Your task to perform on an android device: change the clock display to show seconds Image 0: 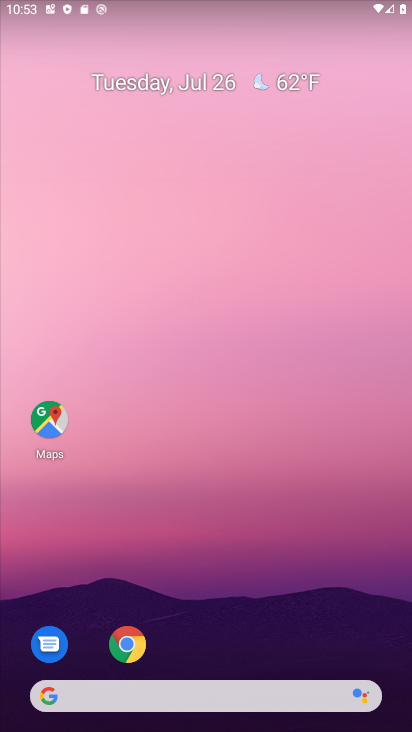
Step 0: drag from (268, 633) to (198, 12)
Your task to perform on an android device: change the clock display to show seconds Image 1: 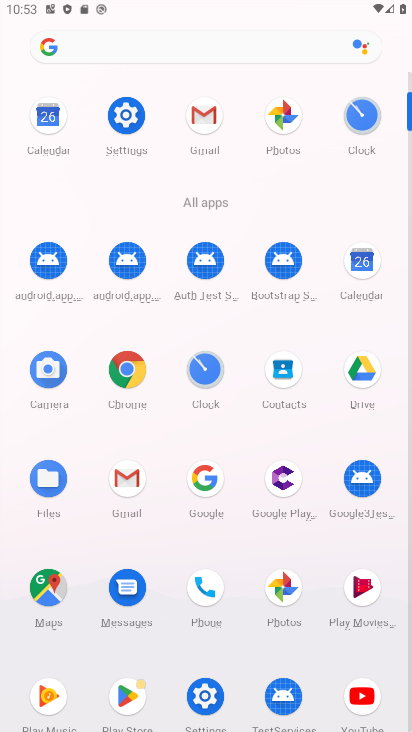
Step 1: click (192, 364)
Your task to perform on an android device: change the clock display to show seconds Image 2: 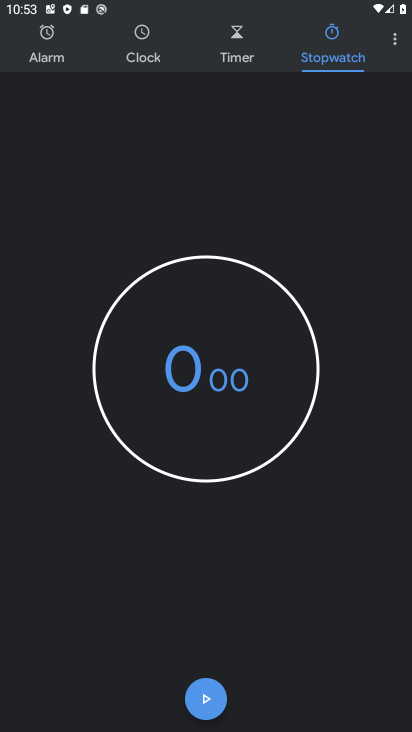
Step 2: click (391, 27)
Your task to perform on an android device: change the clock display to show seconds Image 3: 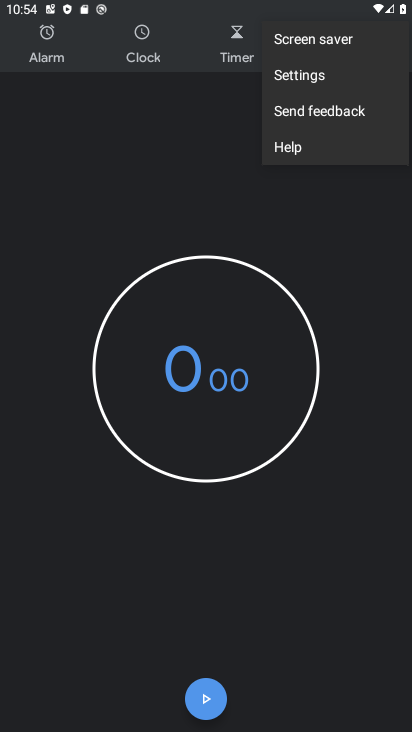
Step 3: click (317, 85)
Your task to perform on an android device: change the clock display to show seconds Image 4: 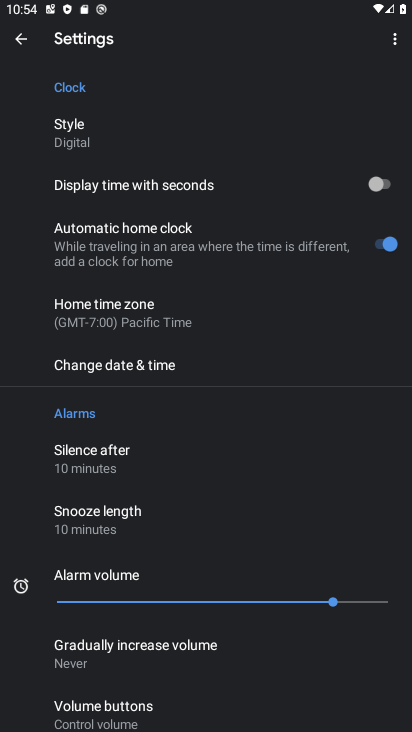
Step 4: click (383, 191)
Your task to perform on an android device: change the clock display to show seconds Image 5: 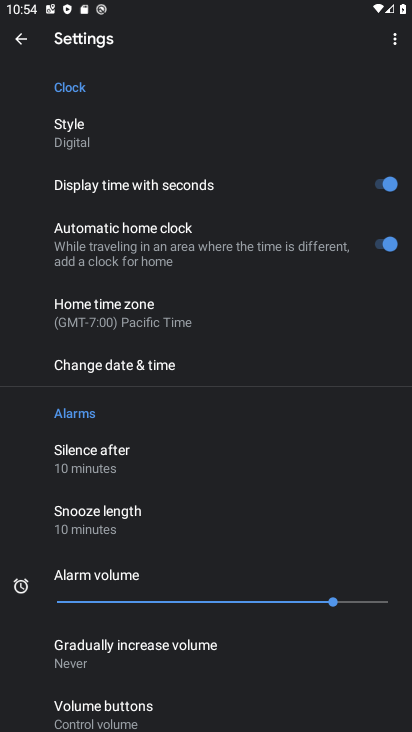
Step 5: task complete